Your task to perform on an android device: Open the stopwatch Image 0: 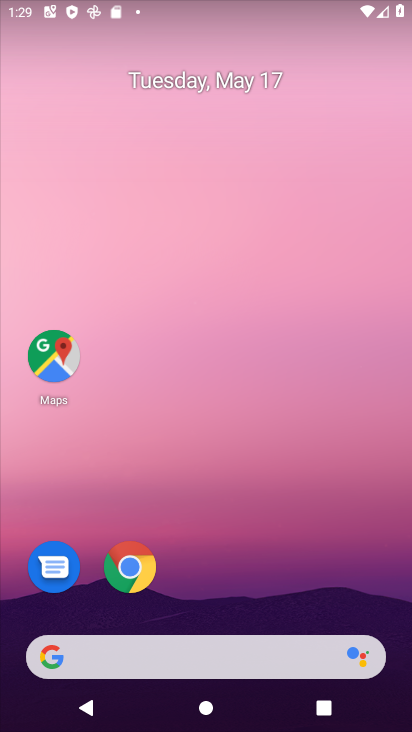
Step 0: drag from (382, 610) to (366, 15)
Your task to perform on an android device: Open the stopwatch Image 1: 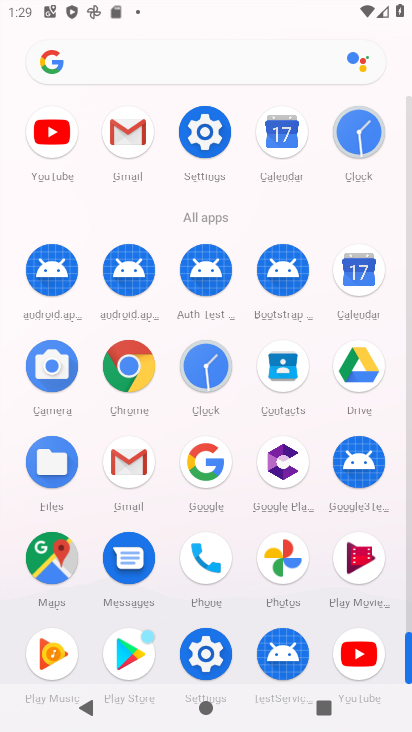
Step 1: click (205, 366)
Your task to perform on an android device: Open the stopwatch Image 2: 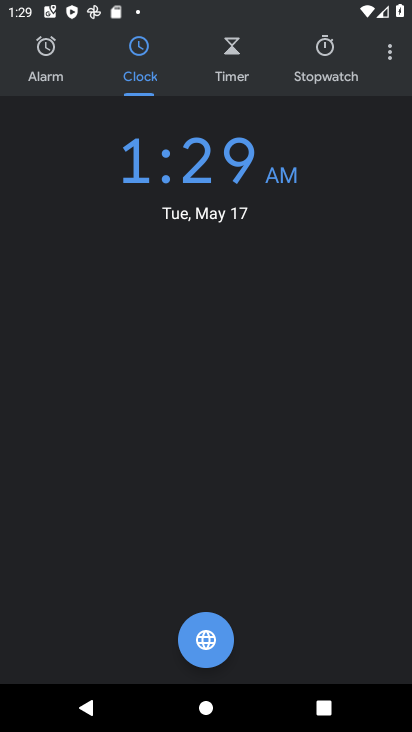
Step 2: click (323, 57)
Your task to perform on an android device: Open the stopwatch Image 3: 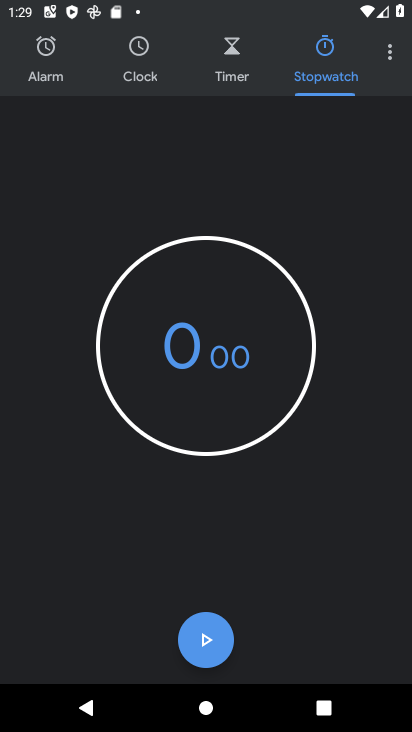
Step 3: task complete